Your task to perform on an android device: Do I have any events tomorrow? Image 0: 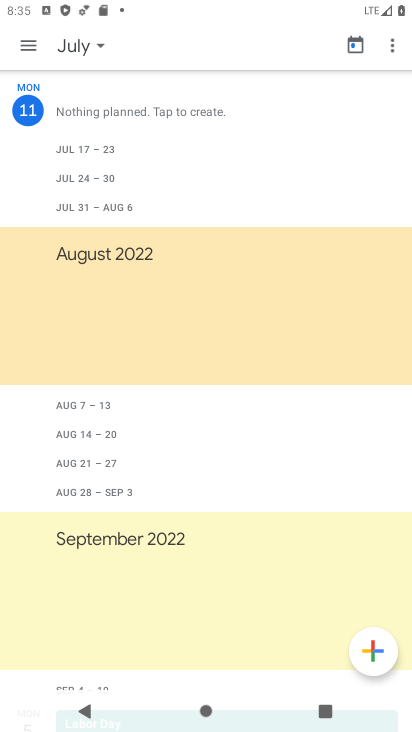
Step 0: press home button
Your task to perform on an android device: Do I have any events tomorrow? Image 1: 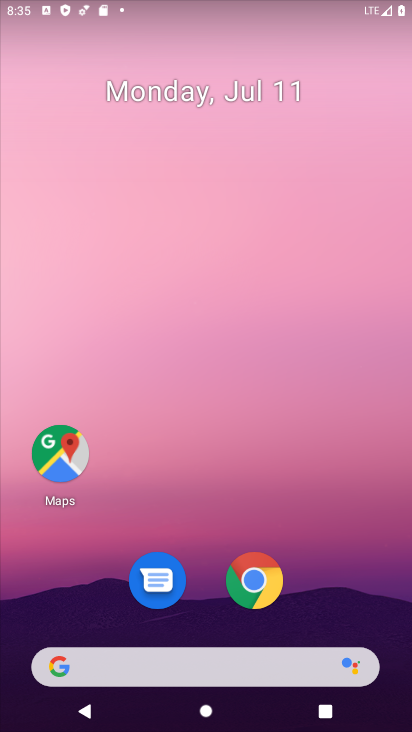
Step 1: drag from (305, 549) to (311, 56)
Your task to perform on an android device: Do I have any events tomorrow? Image 2: 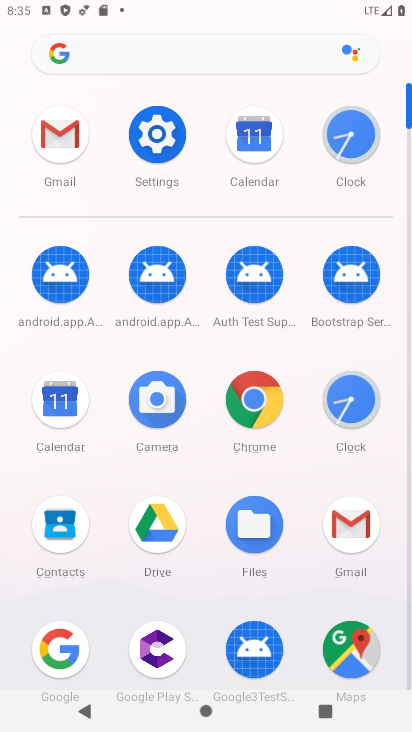
Step 2: click (47, 409)
Your task to perform on an android device: Do I have any events tomorrow? Image 3: 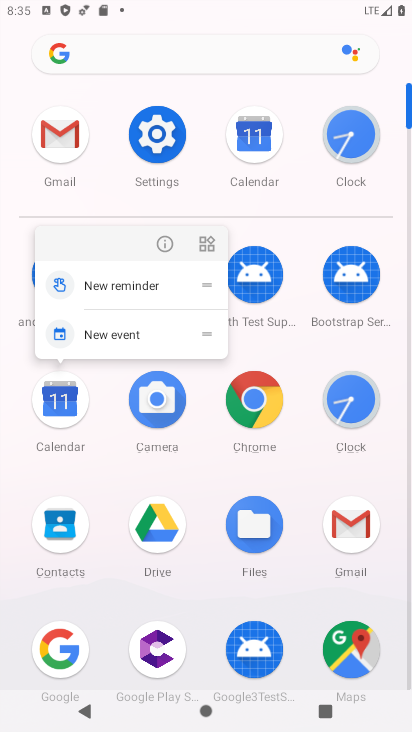
Step 3: click (61, 405)
Your task to perform on an android device: Do I have any events tomorrow? Image 4: 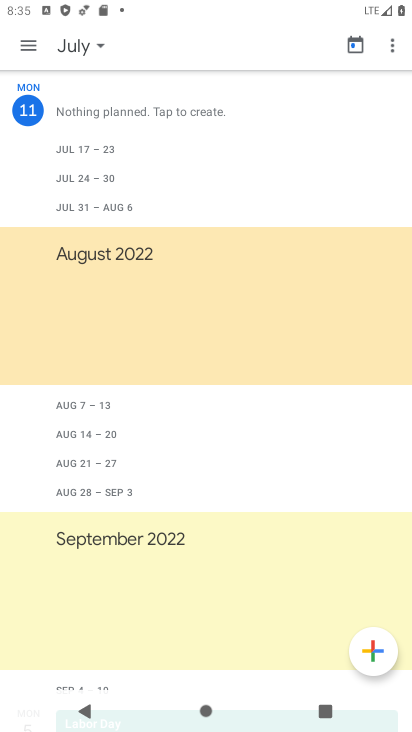
Step 4: task complete